Your task to perform on an android device: Toggle the flashlight Image 0: 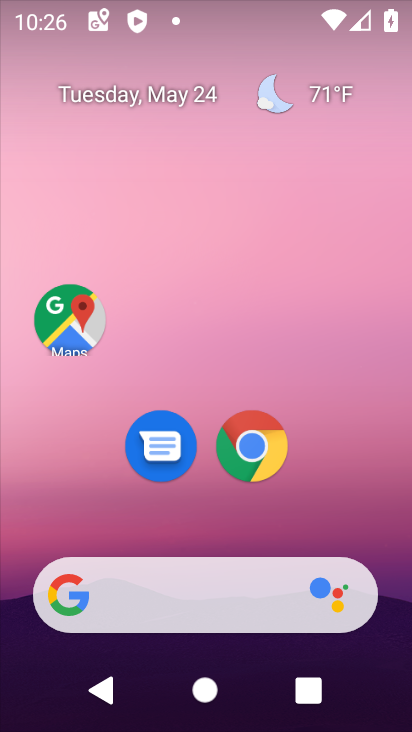
Step 0: drag from (327, 502) to (222, 165)
Your task to perform on an android device: Toggle the flashlight Image 1: 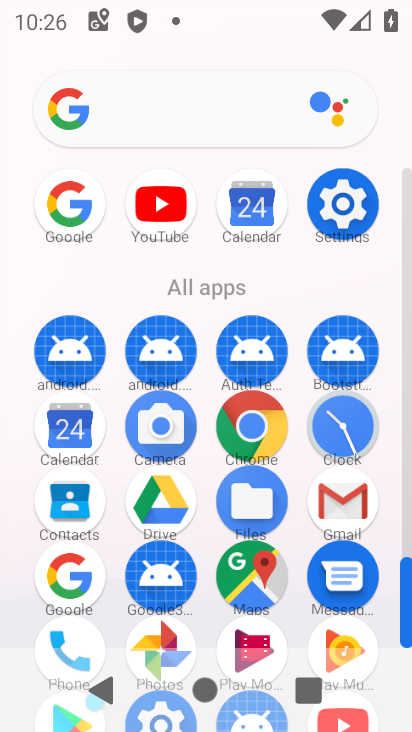
Step 1: click (341, 206)
Your task to perform on an android device: Toggle the flashlight Image 2: 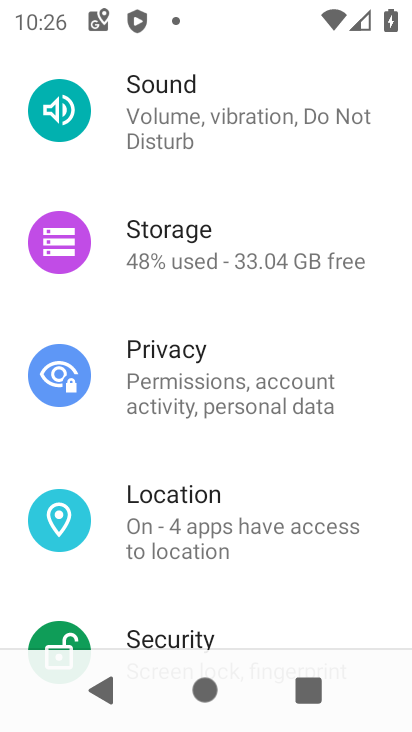
Step 2: drag from (222, 464) to (235, 384)
Your task to perform on an android device: Toggle the flashlight Image 3: 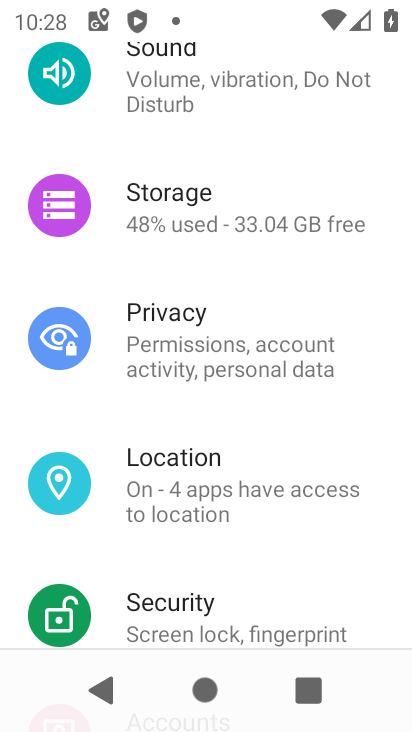
Step 3: drag from (240, 392) to (261, 240)
Your task to perform on an android device: Toggle the flashlight Image 4: 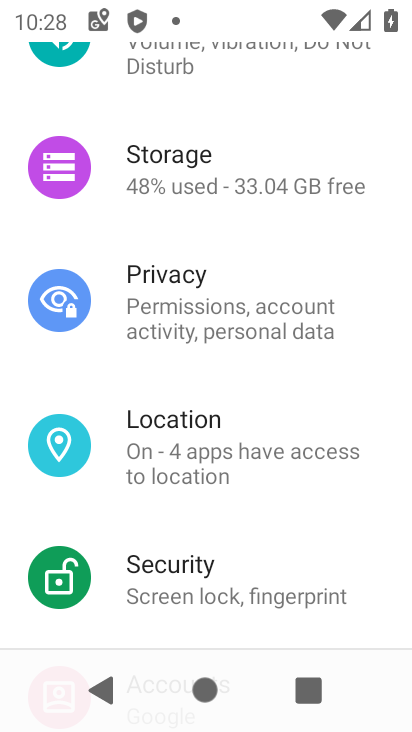
Step 4: drag from (214, 502) to (285, 386)
Your task to perform on an android device: Toggle the flashlight Image 5: 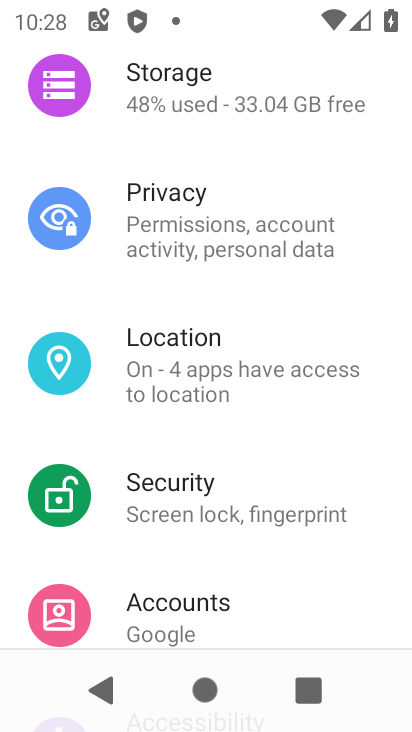
Step 5: drag from (226, 535) to (303, 405)
Your task to perform on an android device: Toggle the flashlight Image 6: 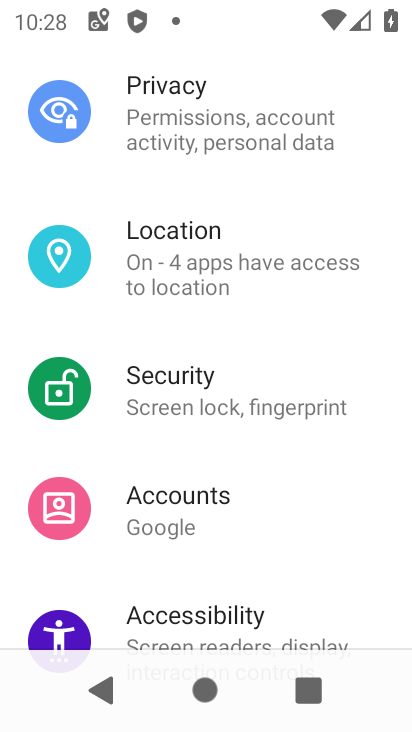
Step 6: drag from (262, 517) to (310, 371)
Your task to perform on an android device: Toggle the flashlight Image 7: 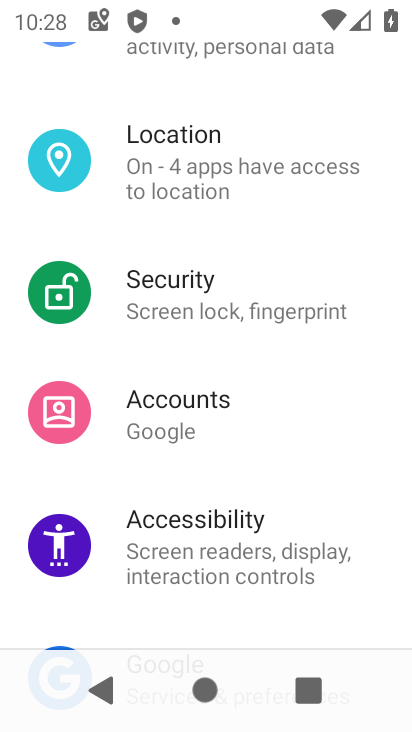
Step 7: click (183, 506)
Your task to perform on an android device: Toggle the flashlight Image 8: 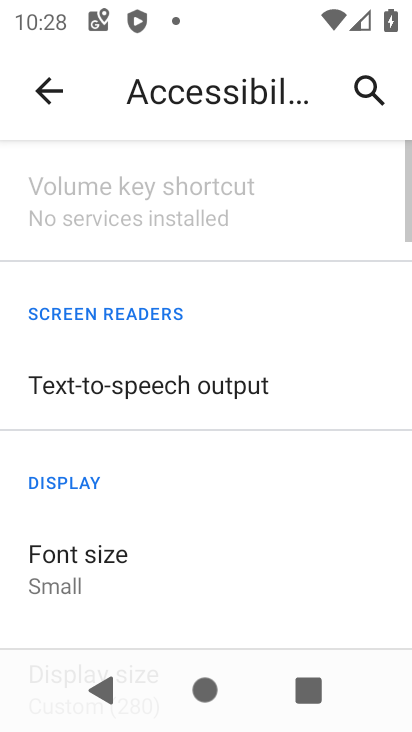
Step 8: task complete